Your task to perform on an android device: Show me the alarms in the clock app Image 0: 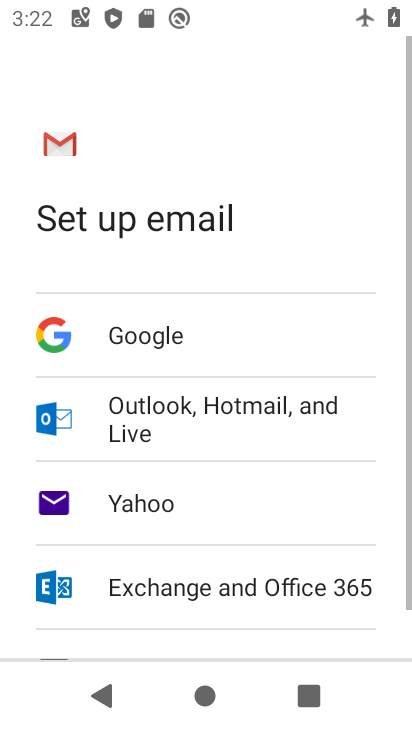
Step 0: press back button
Your task to perform on an android device: Show me the alarms in the clock app Image 1: 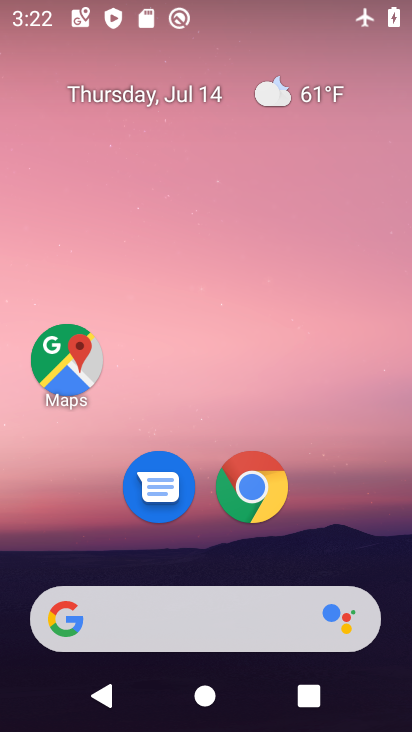
Step 1: drag from (169, 540) to (250, 23)
Your task to perform on an android device: Show me the alarms in the clock app Image 2: 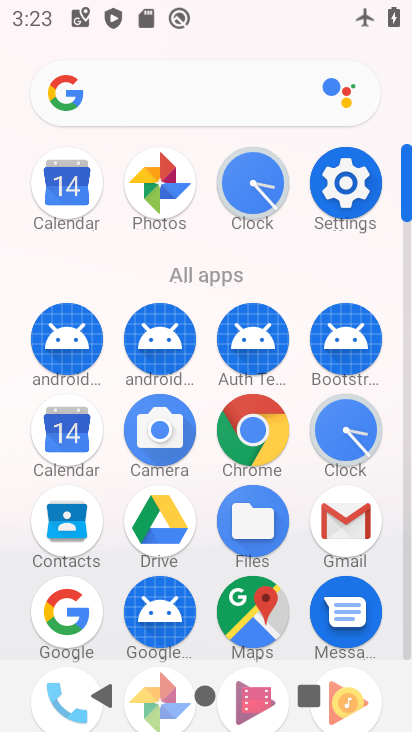
Step 2: click (336, 541)
Your task to perform on an android device: Show me the alarms in the clock app Image 3: 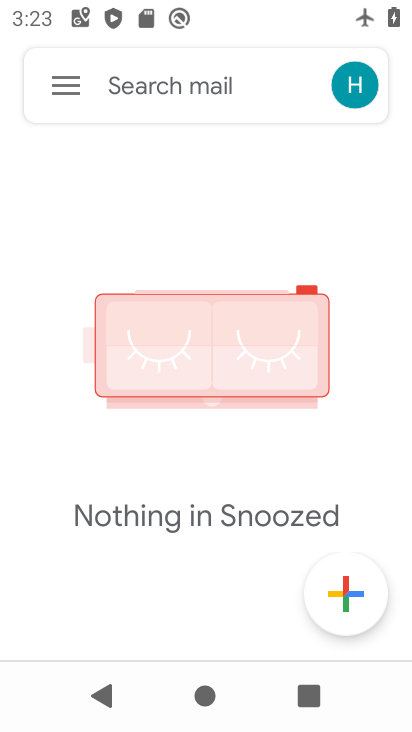
Step 3: press back button
Your task to perform on an android device: Show me the alarms in the clock app Image 4: 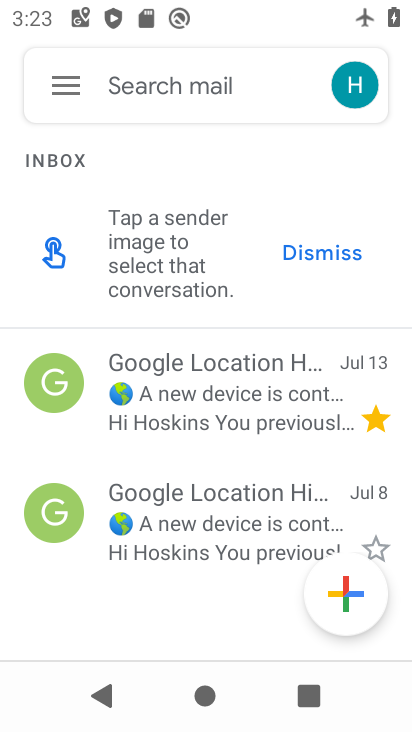
Step 4: press back button
Your task to perform on an android device: Show me the alarms in the clock app Image 5: 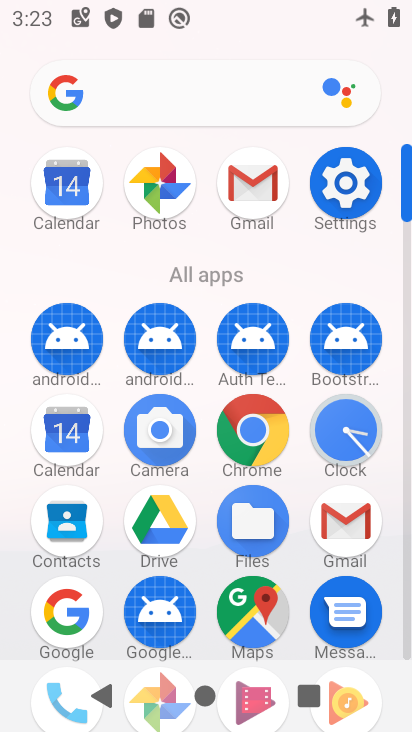
Step 5: click (329, 424)
Your task to perform on an android device: Show me the alarms in the clock app Image 6: 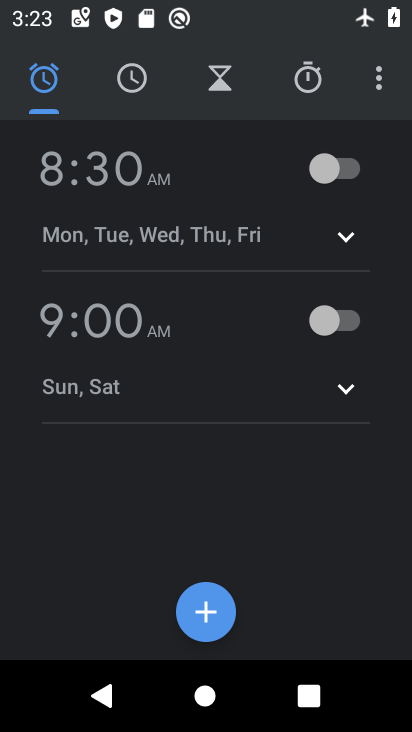
Step 6: task complete